Your task to perform on an android device: Search for macbook pro on ebay.com, select the first entry, and add it to the cart. Image 0: 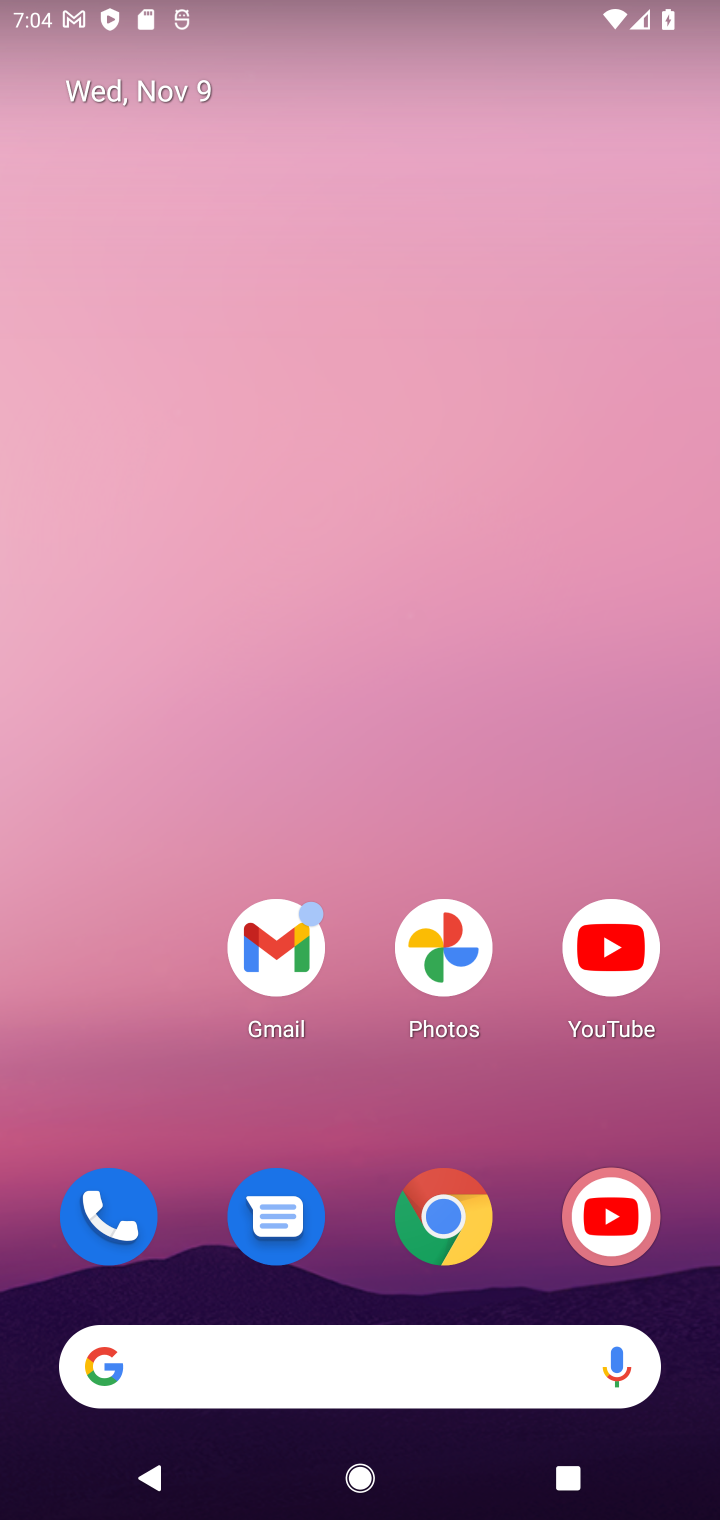
Step 0: click (694, 755)
Your task to perform on an android device: Search for macbook pro on ebay.com, select the first entry, and add it to the cart. Image 1: 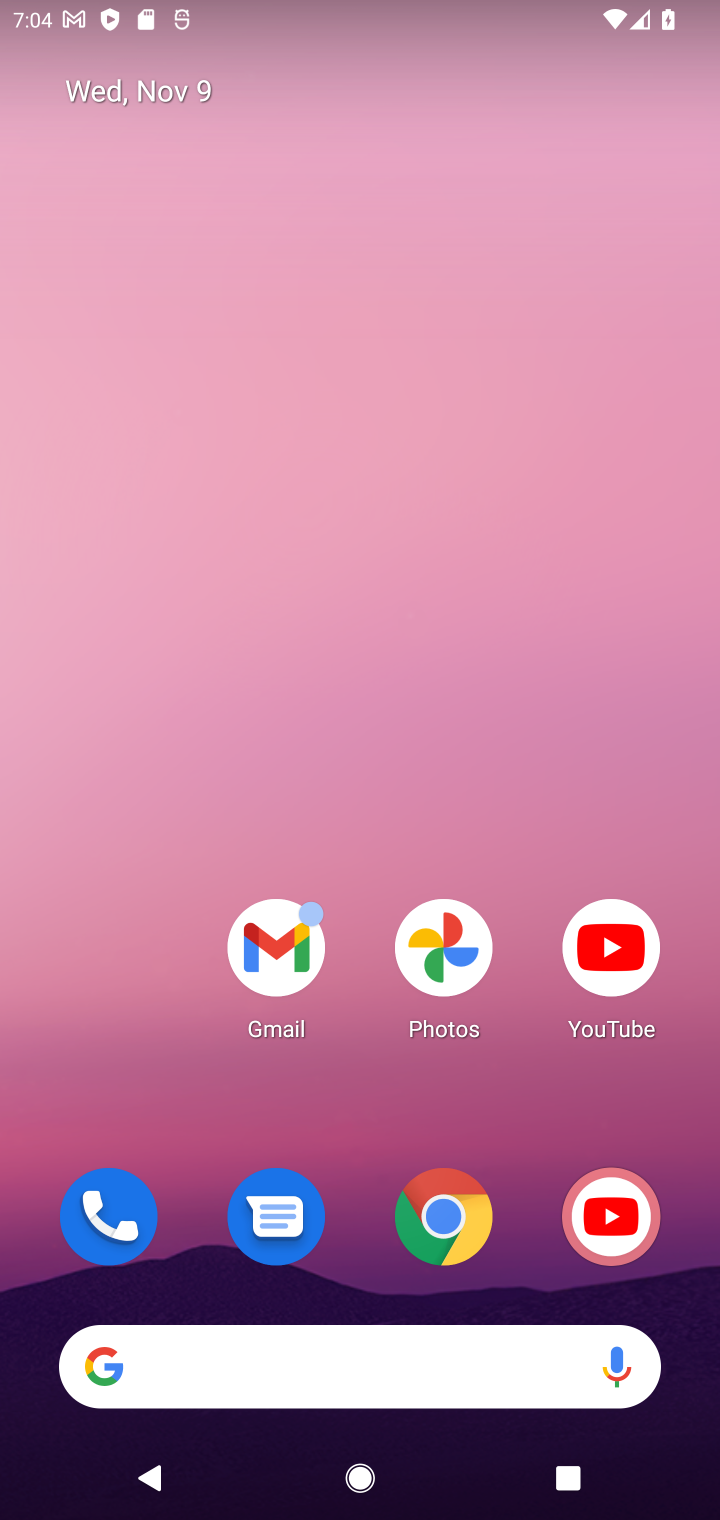
Step 1: drag from (392, 1124) to (411, 118)
Your task to perform on an android device: Search for macbook pro on ebay.com, select the first entry, and add it to the cart. Image 2: 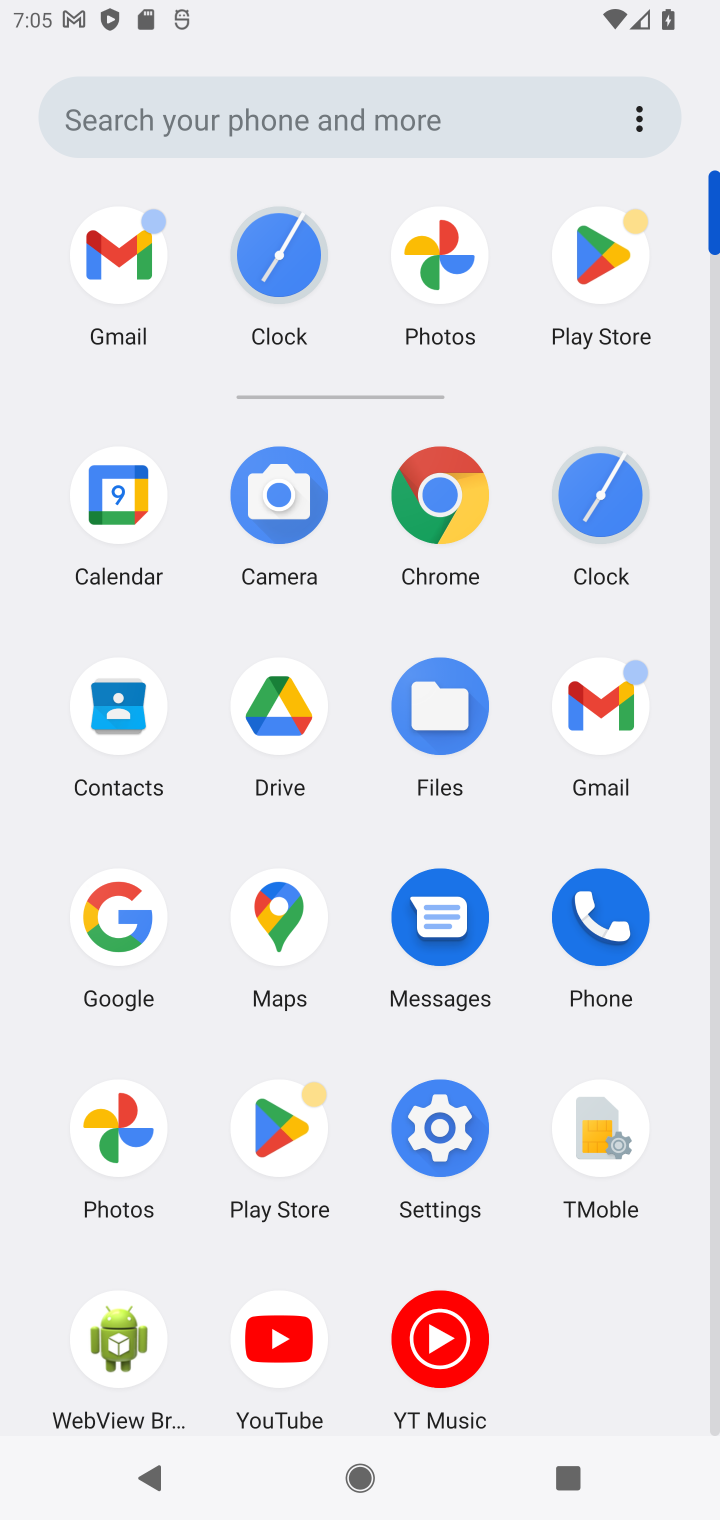
Step 2: click (430, 496)
Your task to perform on an android device: Search for macbook pro on ebay.com, select the first entry, and add it to the cart. Image 3: 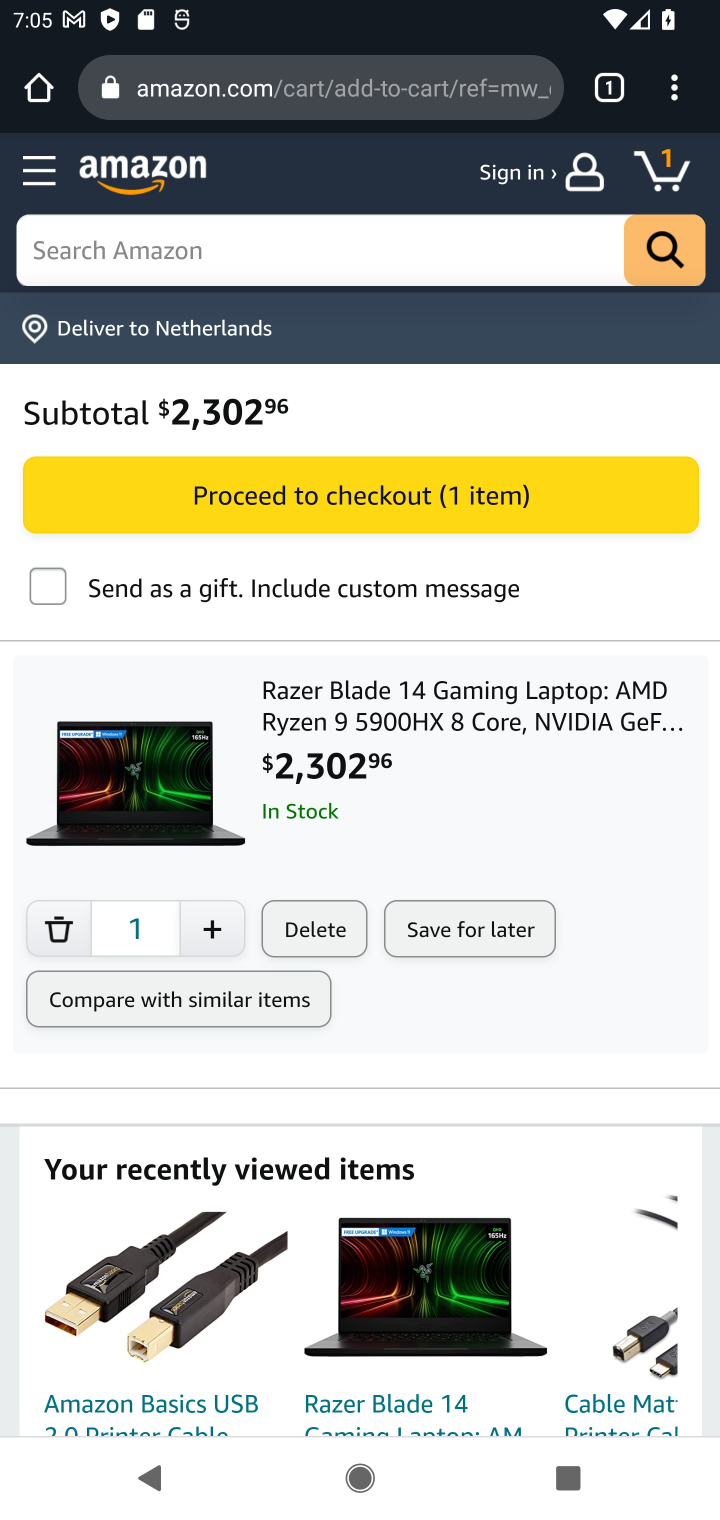
Step 3: click (372, 72)
Your task to perform on an android device: Search for macbook pro on ebay.com, select the first entry, and add it to the cart. Image 4: 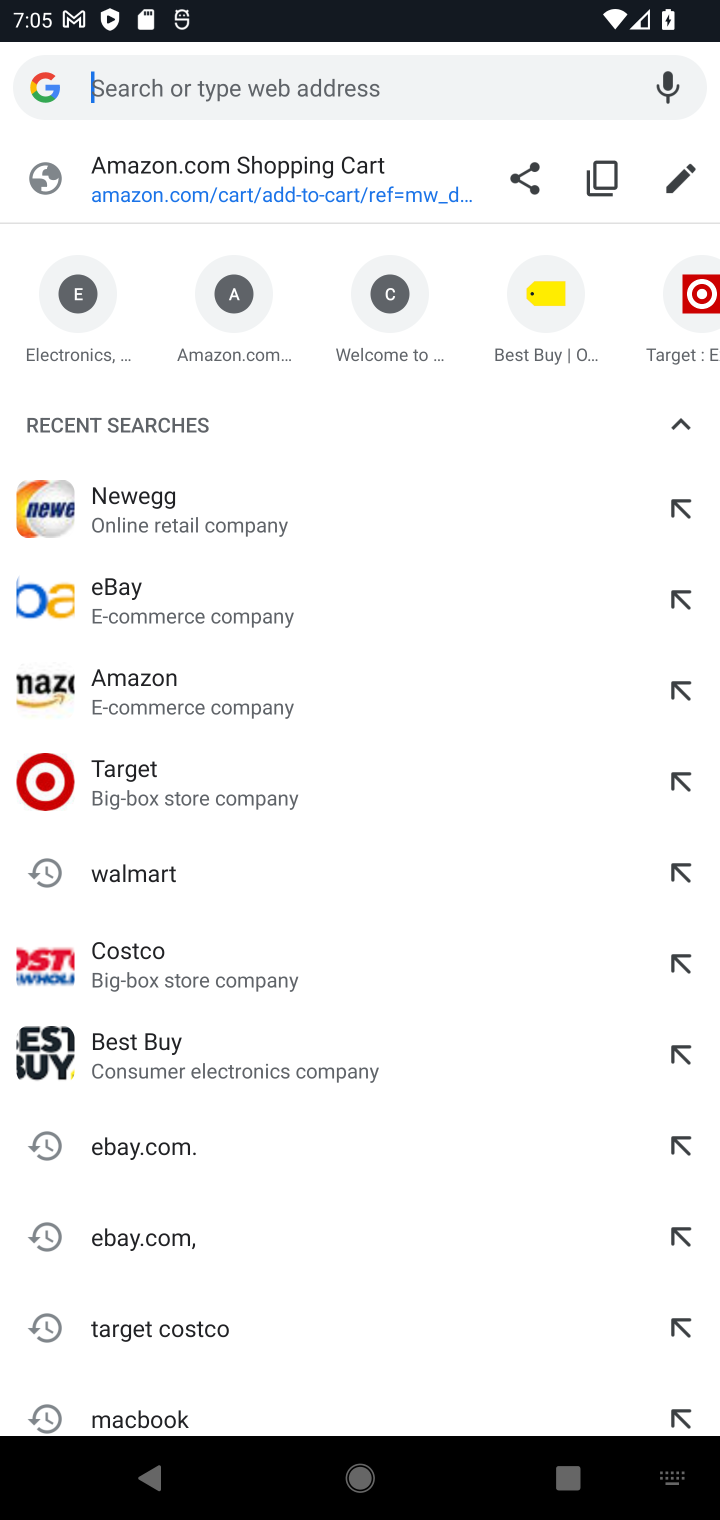
Step 4: type "ebay.com"
Your task to perform on an android device: Search for macbook pro on ebay.com, select the first entry, and add it to the cart. Image 5: 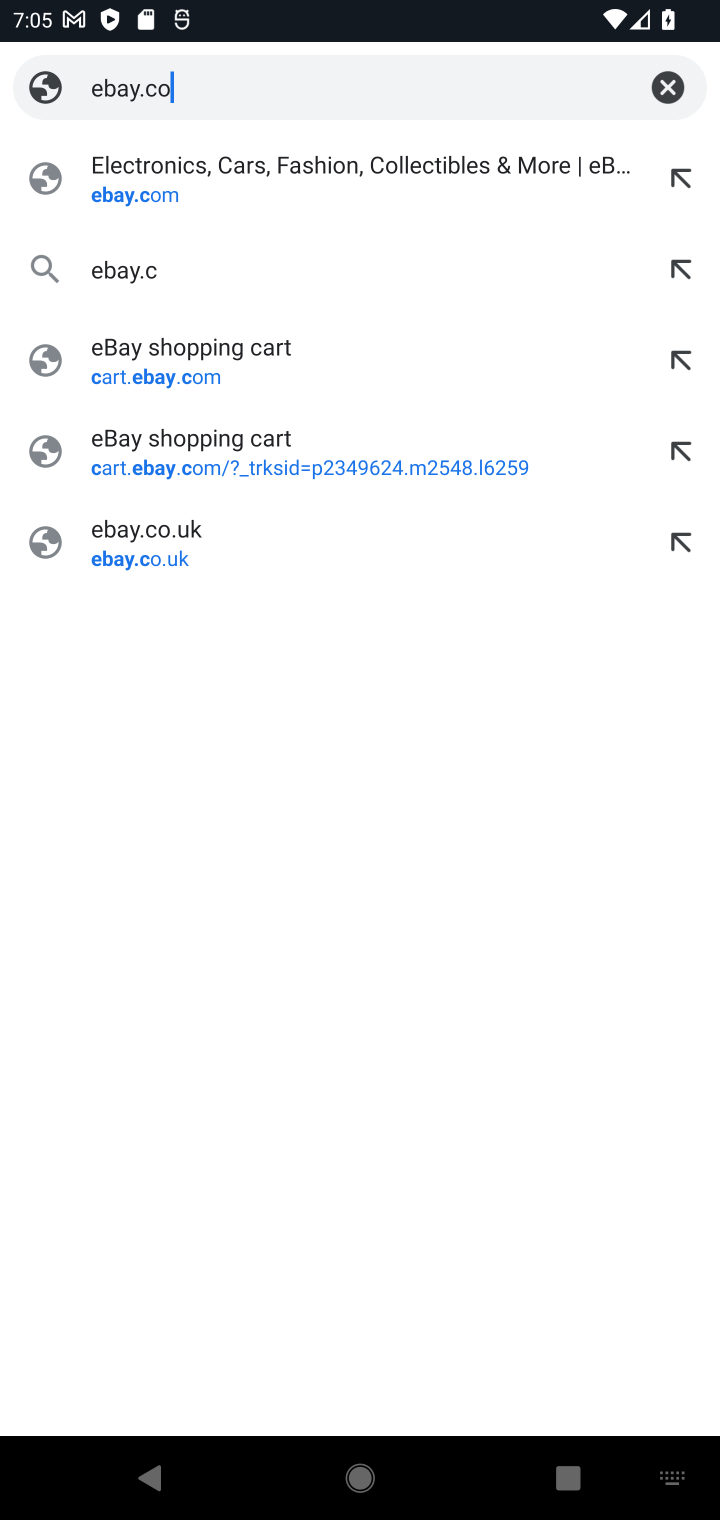
Step 5: press enter
Your task to perform on an android device: Search for macbook pro on ebay.com, select the first entry, and add it to the cart. Image 6: 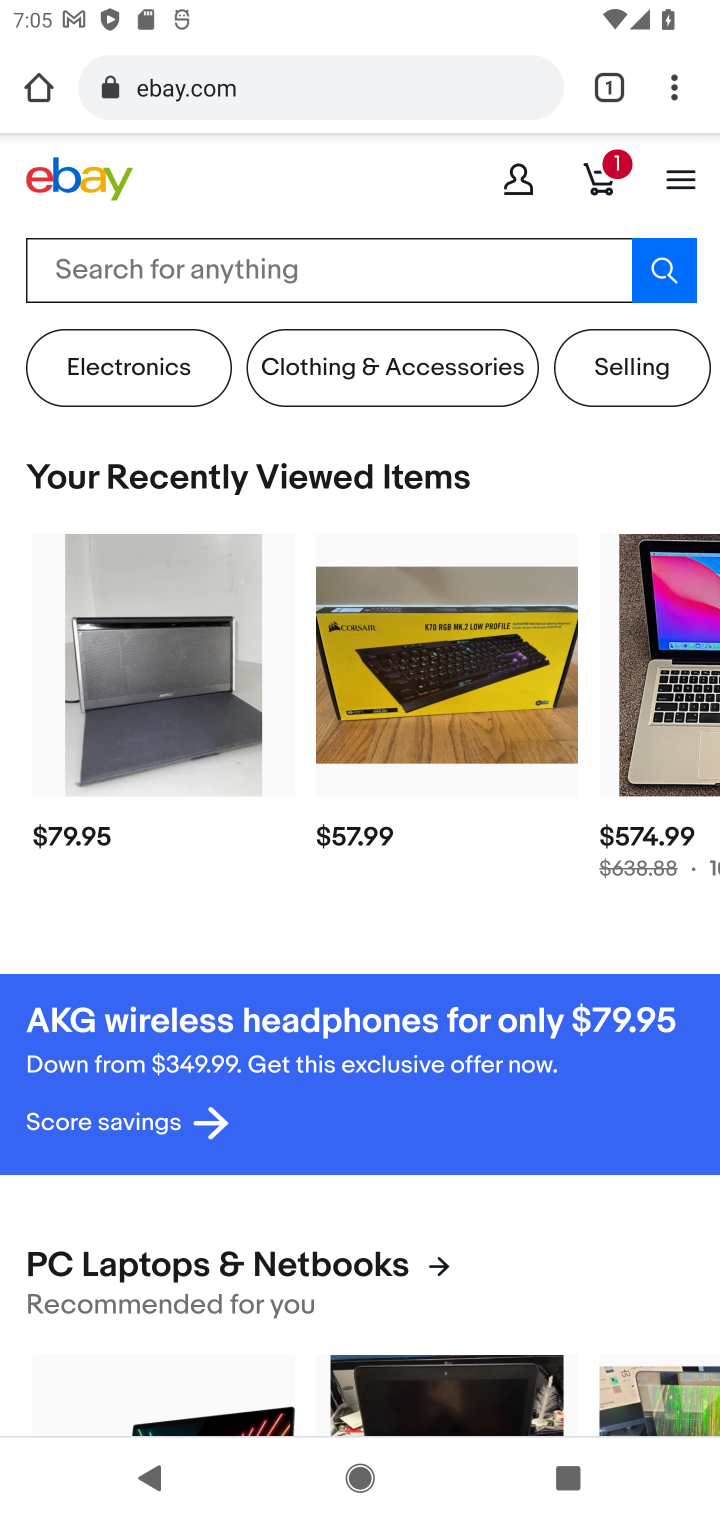
Step 6: click (383, 273)
Your task to perform on an android device: Search for macbook pro on ebay.com, select the first entry, and add it to the cart. Image 7: 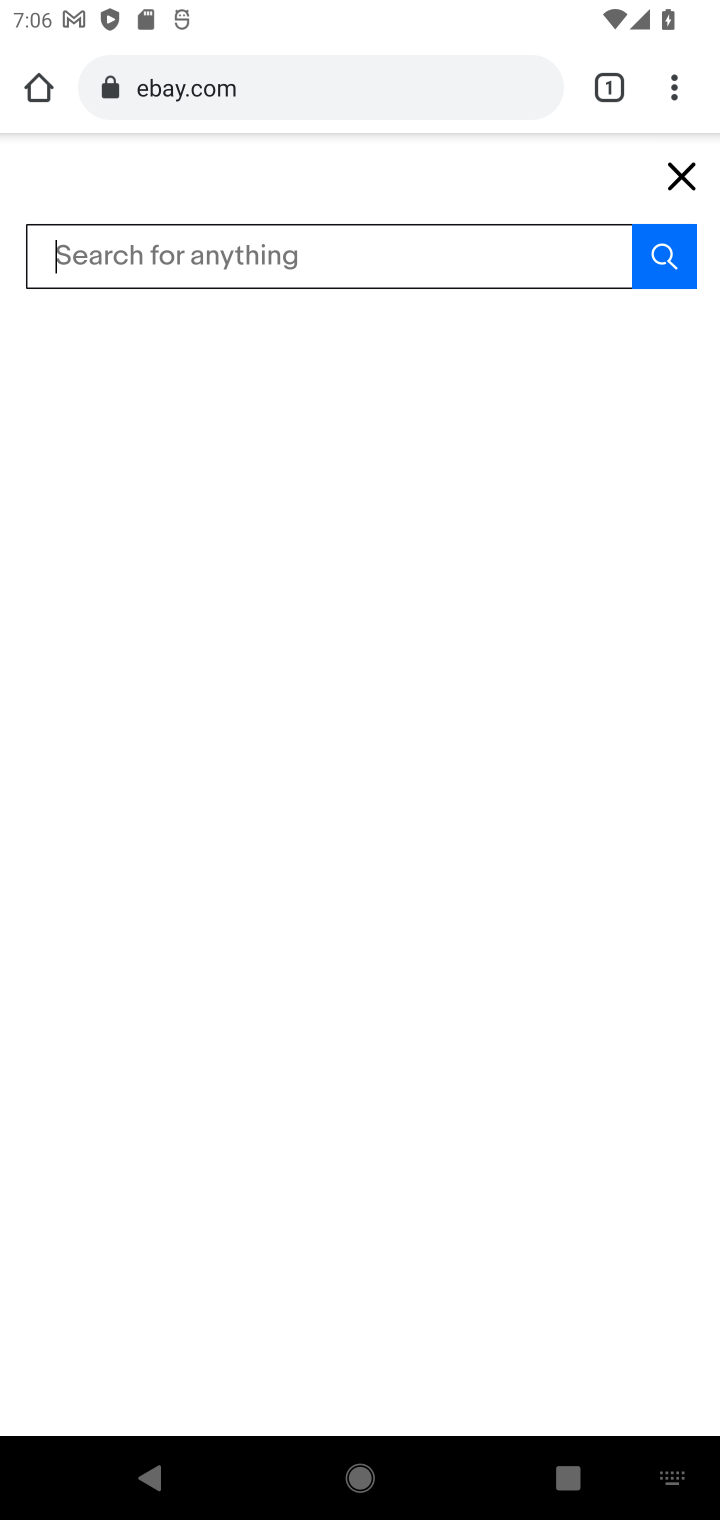
Step 7: type "macbook pro "
Your task to perform on an android device: Search for macbook pro on ebay.com, select the first entry, and add it to the cart. Image 8: 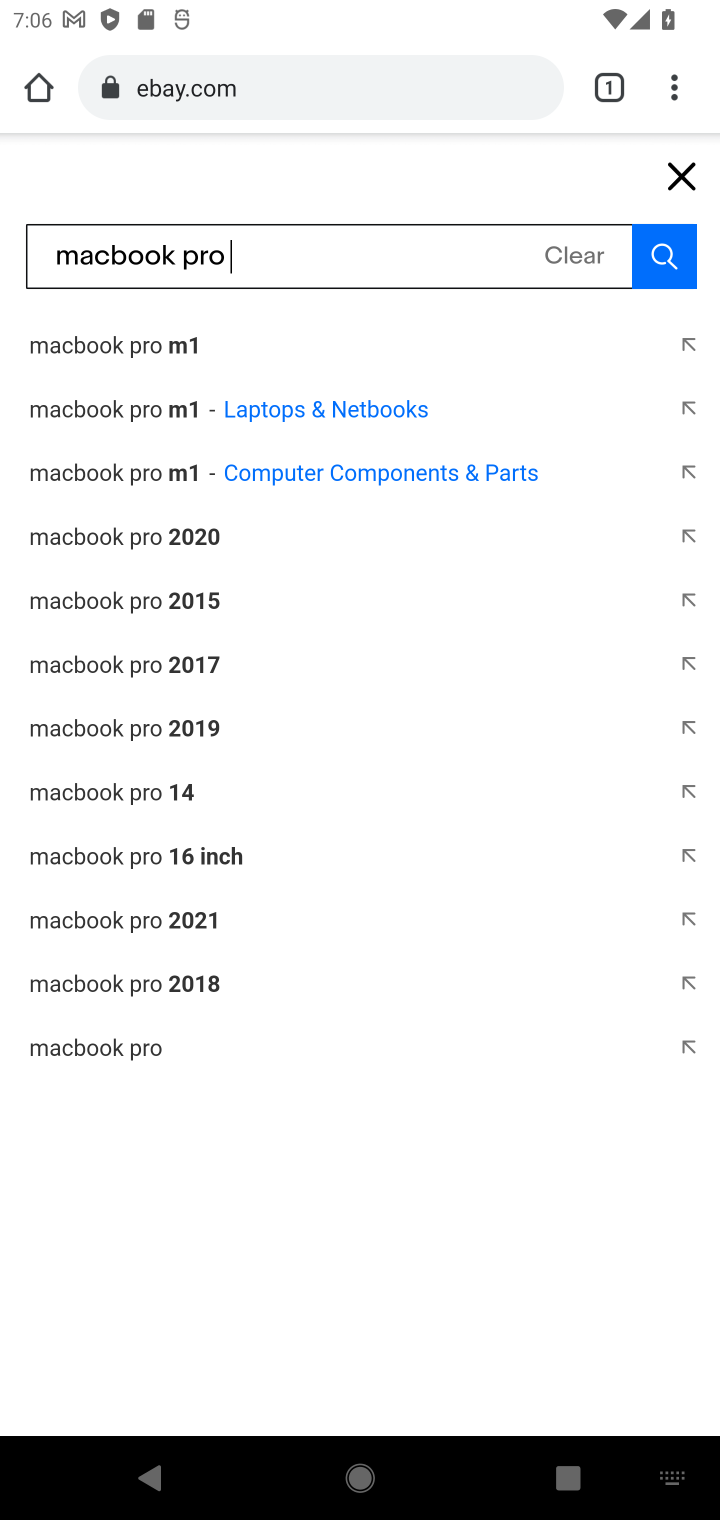
Step 8: press enter
Your task to perform on an android device: Search for macbook pro on ebay.com, select the first entry, and add it to the cart. Image 9: 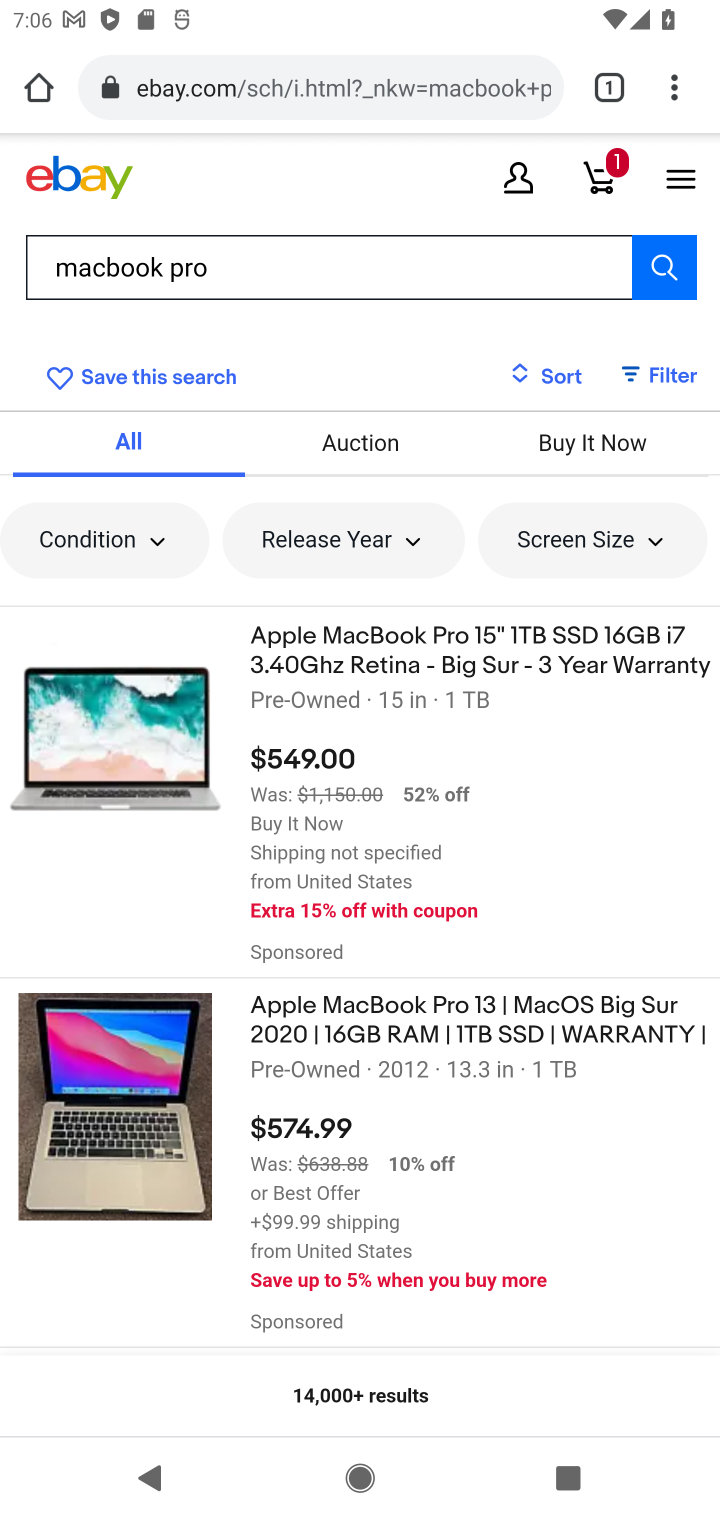
Step 9: click (348, 660)
Your task to perform on an android device: Search for macbook pro on ebay.com, select the first entry, and add it to the cart. Image 10: 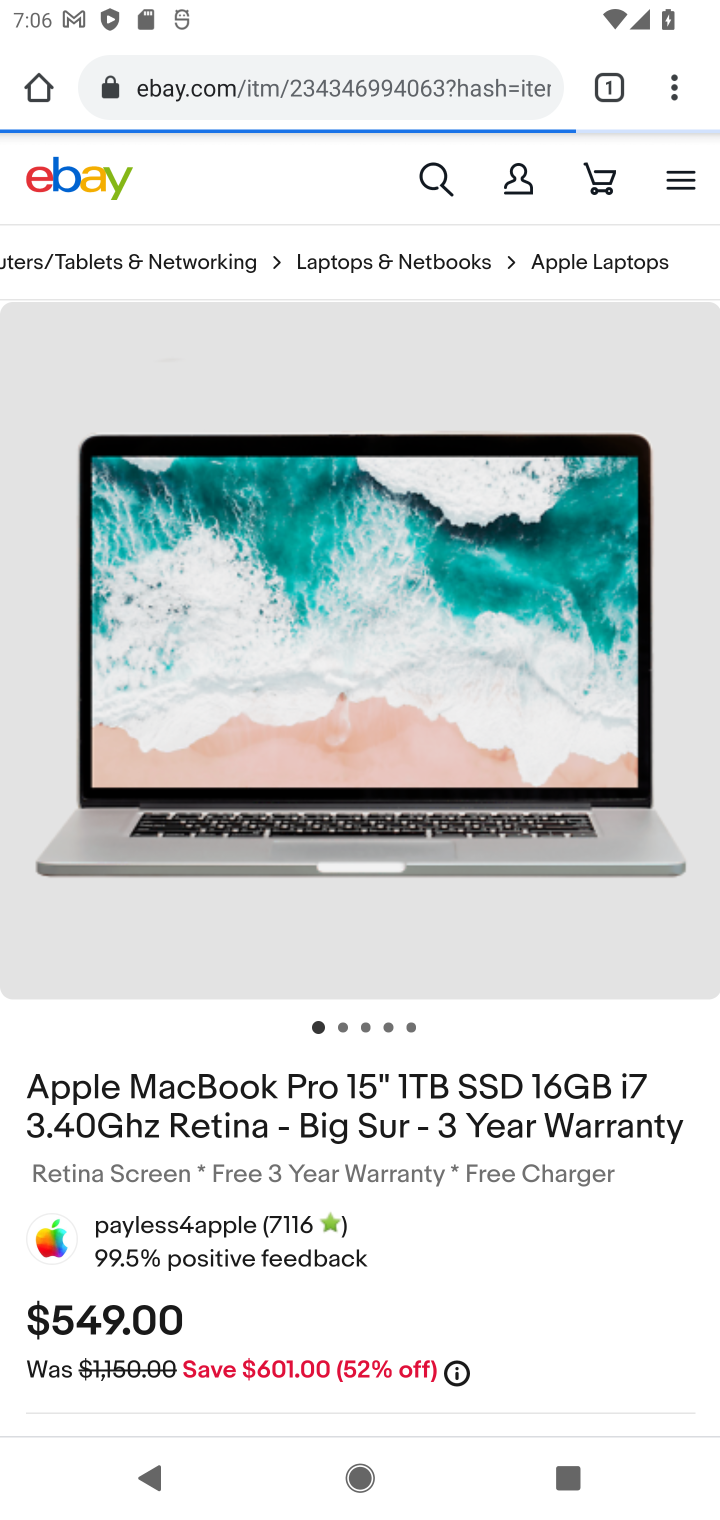
Step 10: drag from (451, 1295) to (452, 456)
Your task to perform on an android device: Search for macbook pro on ebay.com, select the first entry, and add it to the cart. Image 11: 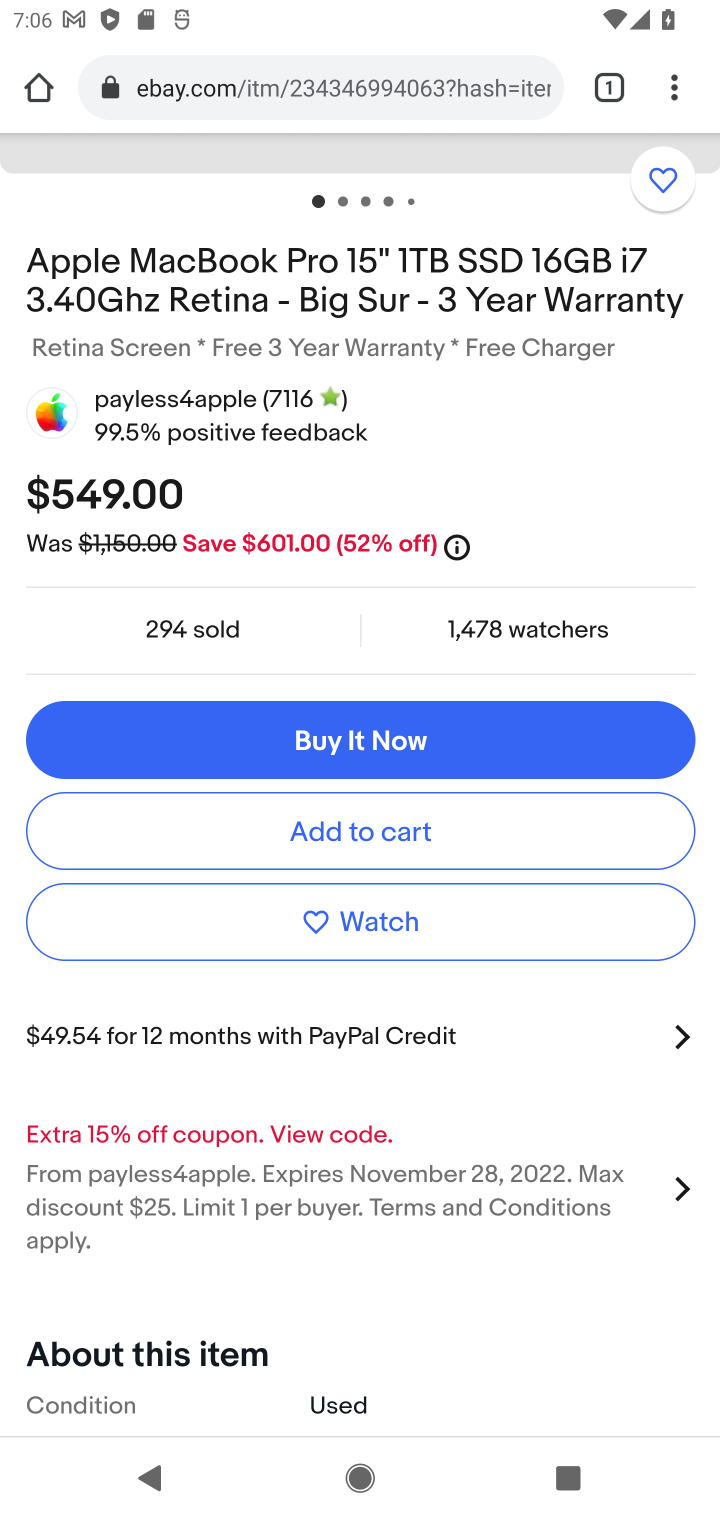
Step 11: click (419, 834)
Your task to perform on an android device: Search for macbook pro on ebay.com, select the first entry, and add it to the cart. Image 12: 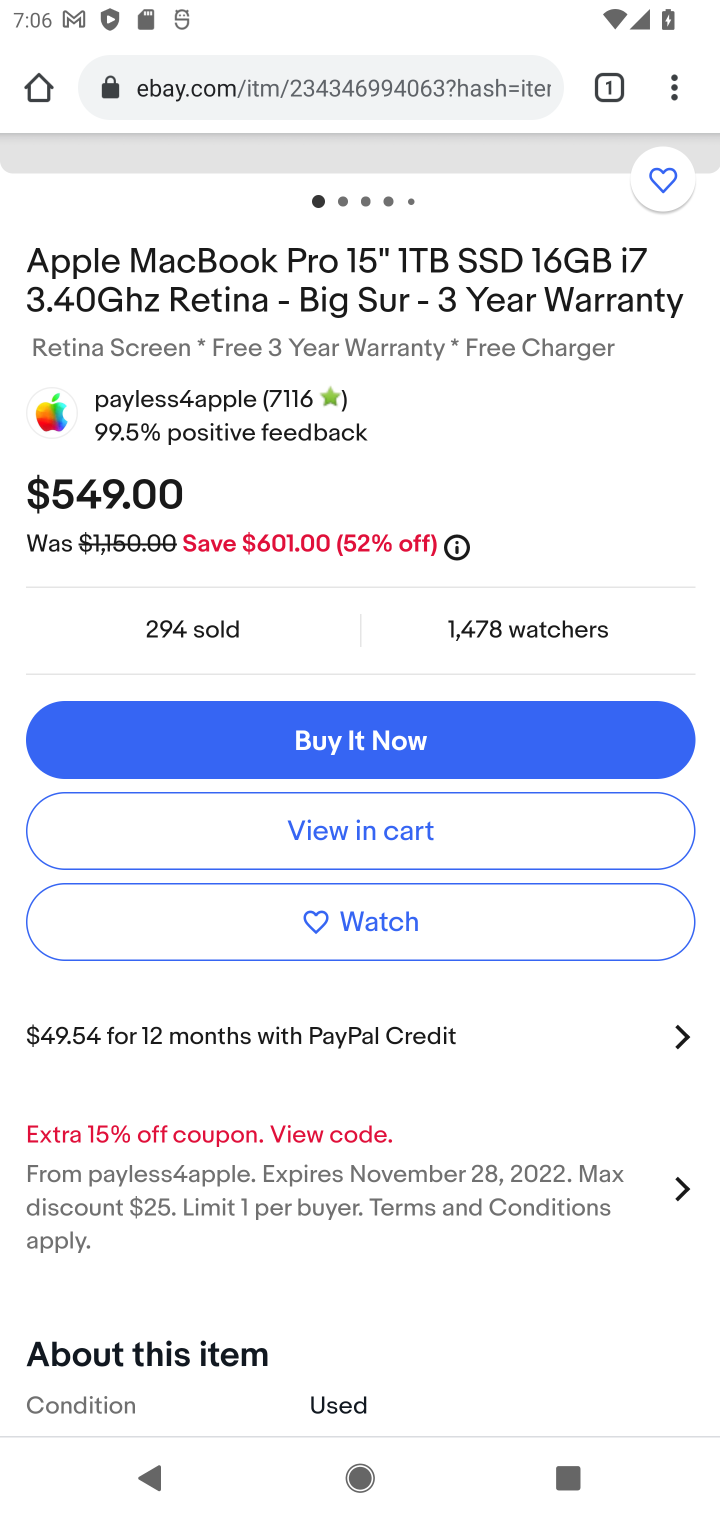
Step 12: task complete